Your task to perform on an android device: Open Maps and search for coffee Image 0: 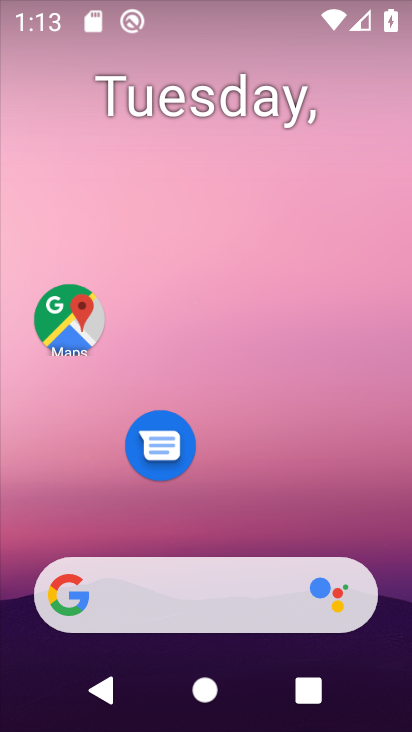
Step 0: click (59, 316)
Your task to perform on an android device: Open Maps and search for coffee Image 1: 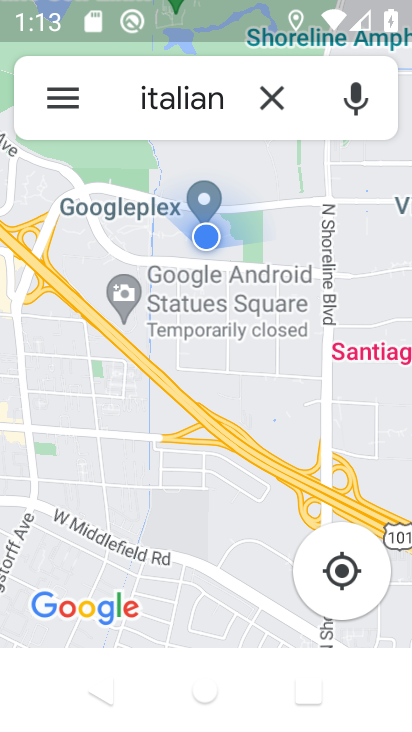
Step 1: click (270, 95)
Your task to perform on an android device: Open Maps and search for coffee Image 2: 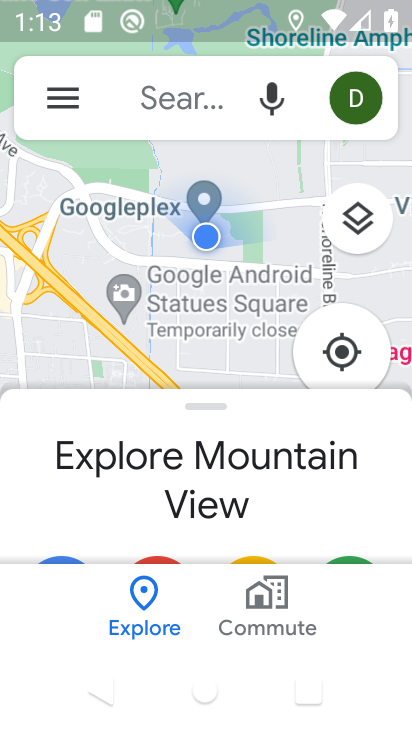
Step 2: click (181, 98)
Your task to perform on an android device: Open Maps and search for coffee Image 3: 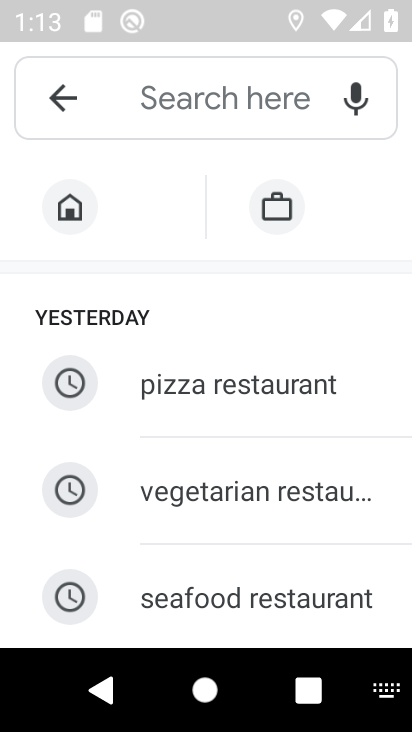
Step 3: type "coffee"
Your task to perform on an android device: Open Maps and search for coffee Image 4: 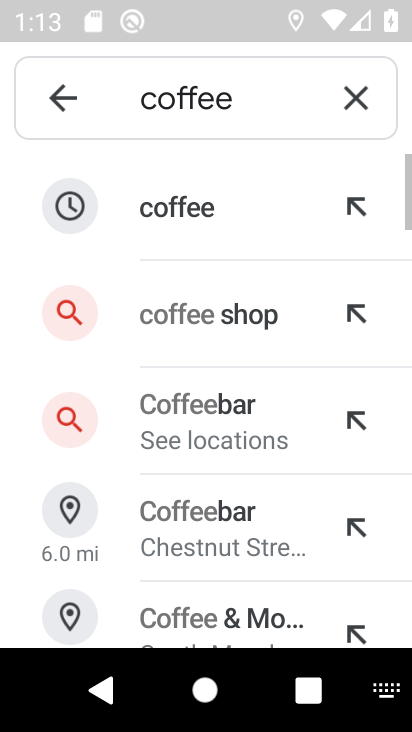
Step 4: click (205, 205)
Your task to perform on an android device: Open Maps and search for coffee Image 5: 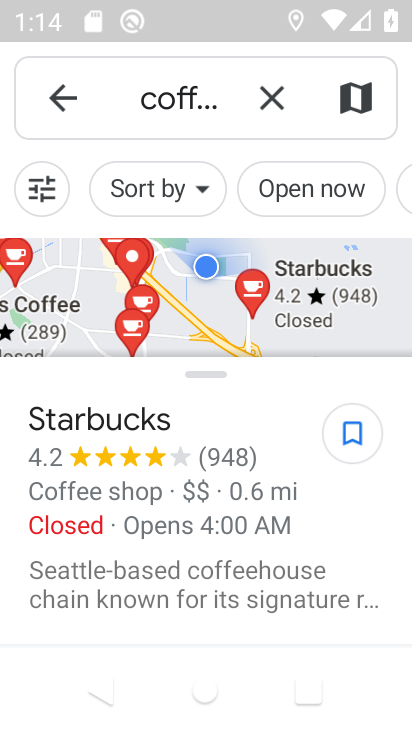
Step 5: task complete